Your task to perform on an android device: Do I have any events tomorrow? Image 0: 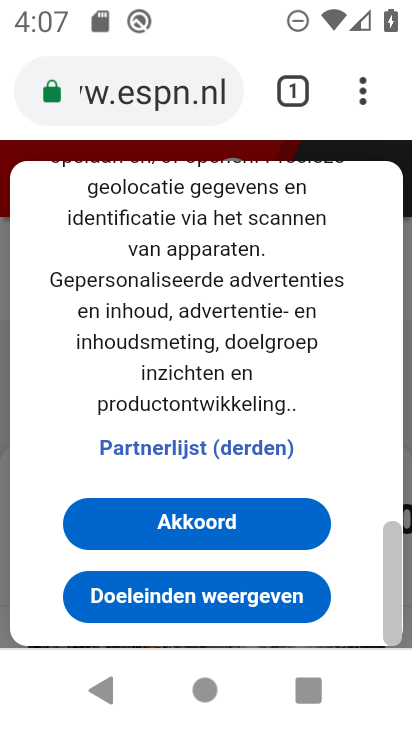
Step 0: press home button
Your task to perform on an android device: Do I have any events tomorrow? Image 1: 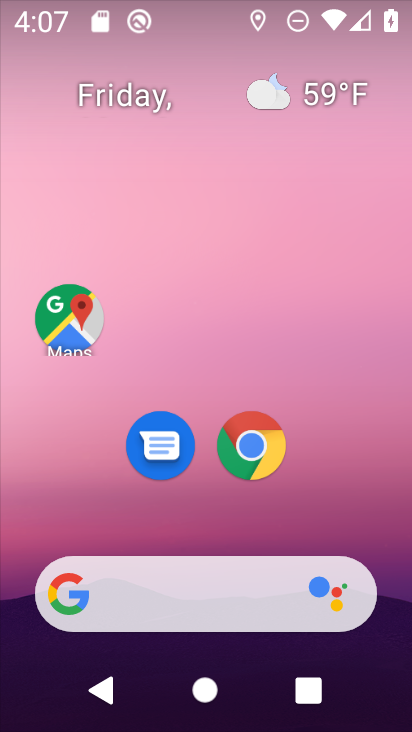
Step 1: drag from (393, 582) to (365, 241)
Your task to perform on an android device: Do I have any events tomorrow? Image 2: 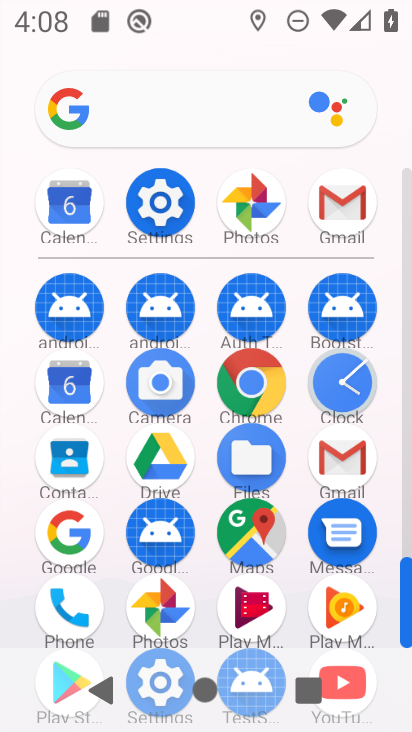
Step 2: drag from (408, 535) to (405, 467)
Your task to perform on an android device: Do I have any events tomorrow? Image 3: 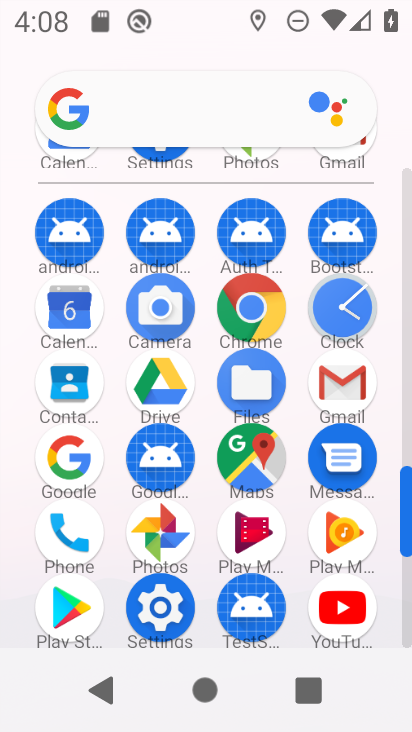
Step 3: click (64, 305)
Your task to perform on an android device: Do I have any events tomorrow? Image 4: 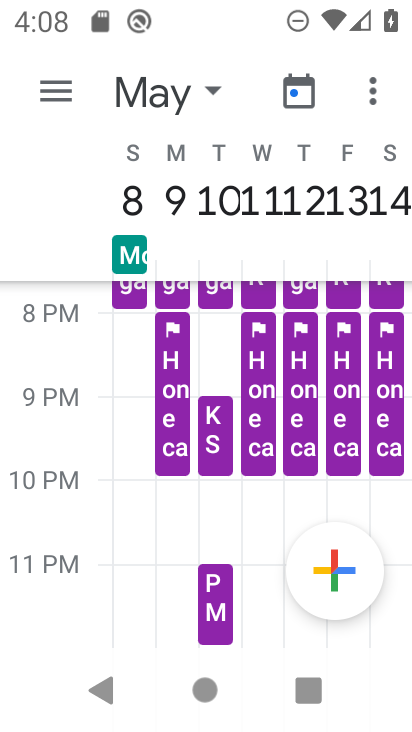
Step 4: click (55, 91)
Your task to perform on an android device: Do I have any events tomorrow? Image 5: 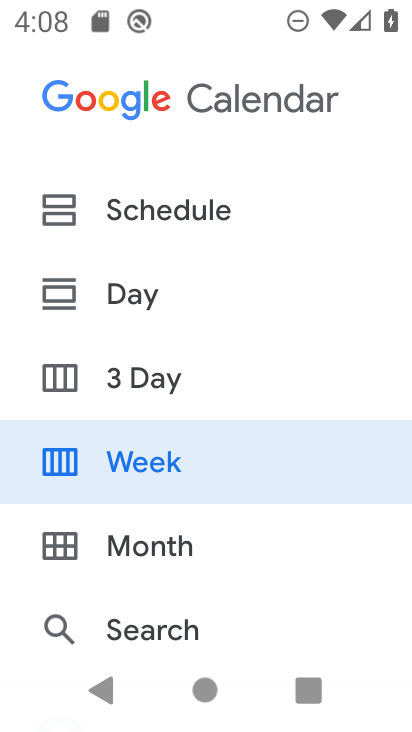
Step 5: click (125, 294)
Your task to perform on an android device: Do I have any events tomorrow? Image 6: 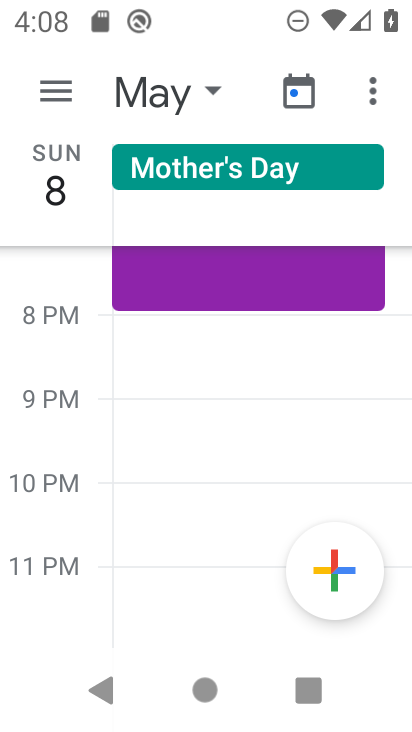
Step 6: click (203, 86)
Your task to perform on an android device: Do I have any events tomorrow? Image 7: 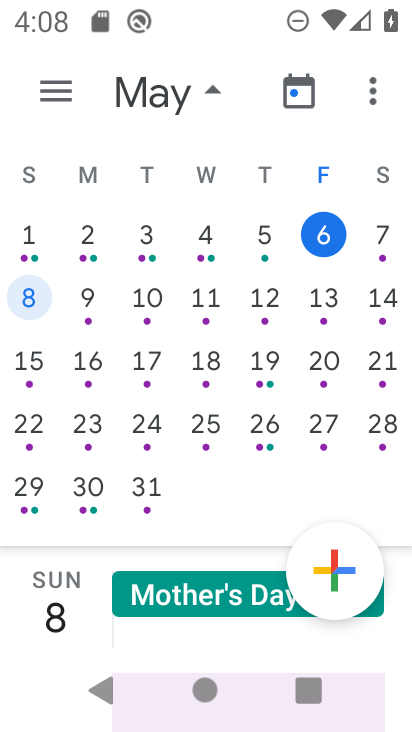
Step 7: click (390, 233)
Your task to perform on an android device: Do I have any events tomorrow? Image 8: 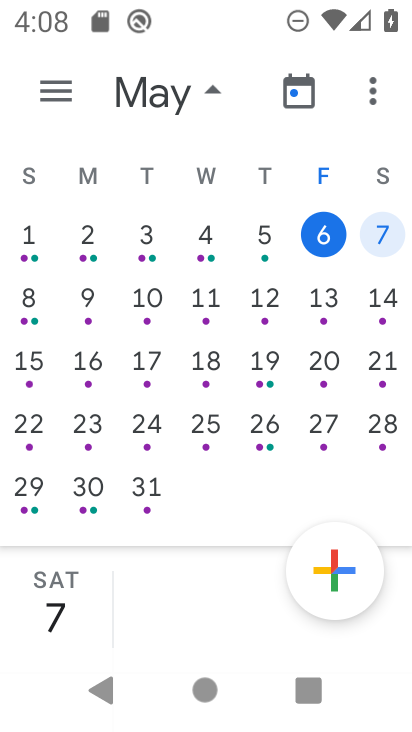
Step 8: task complete